Your task to perform on an android device: Search for sushi restaurants on Maps Image 0: 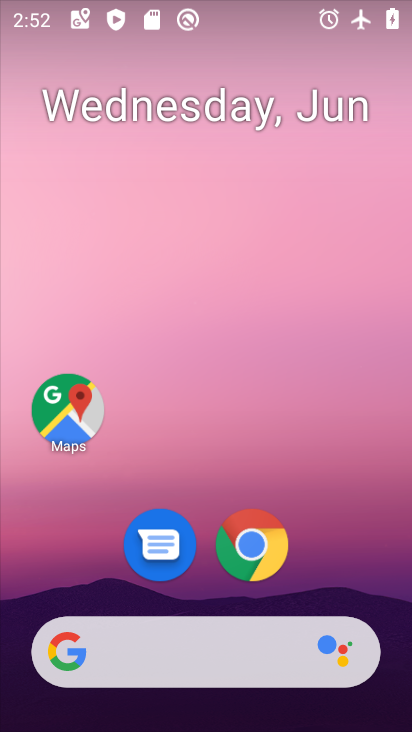
Step 0: click (52, 406)
Your task to perform on an android device: Search for sushi restaurants on Maps Image 1: 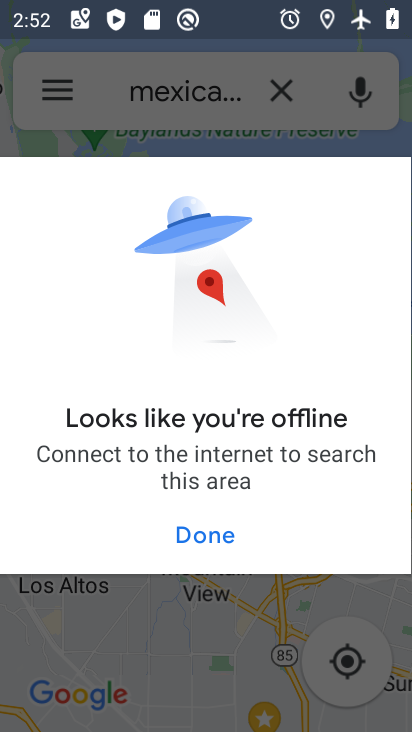
Step 1: click (220, 537)
Your task to perform on an android device: Search for sushi restaurants on Maps Image 2: 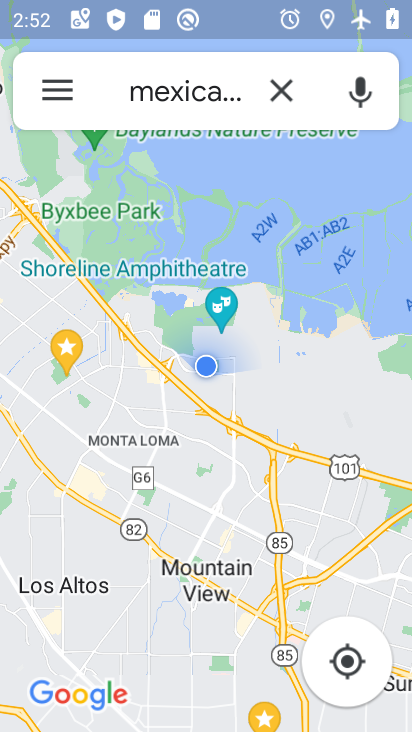
Step 2: click (221, 99)
Your task to perform on an android device: Search for sushi restaurants on Maps Image 3: 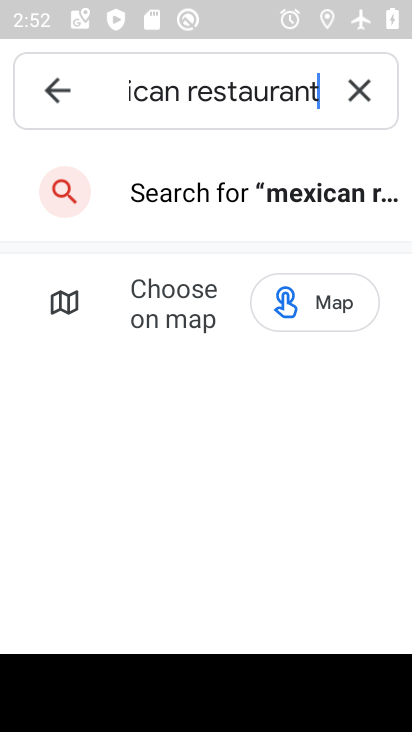
Step 3: click (347, 90)
Your task to perform on an android device: Search for sushi restaurants on Maps Image 4: 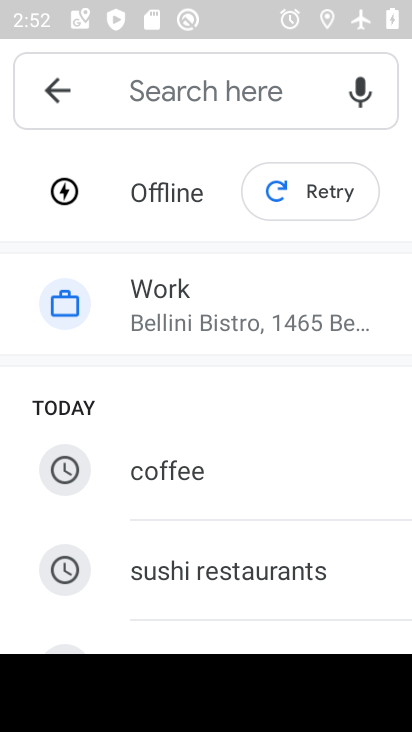
Step 4: click (252, 570)
Your task to perform on an android device: Search for sushi restaurants on Maps Image 5: 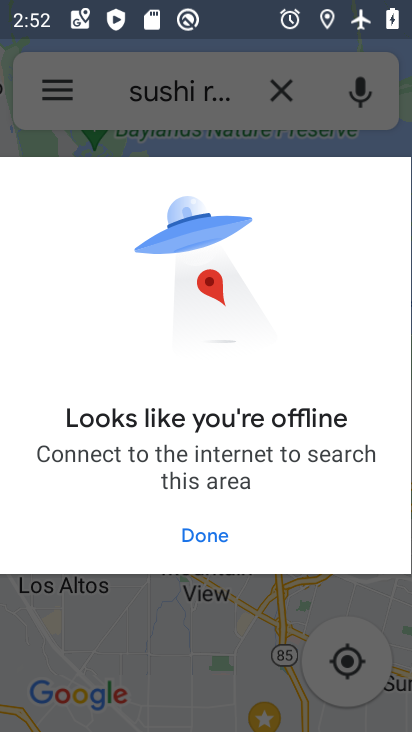
Step 5: task complete